Your task to perform on an android device: Open Amazon Image 0: 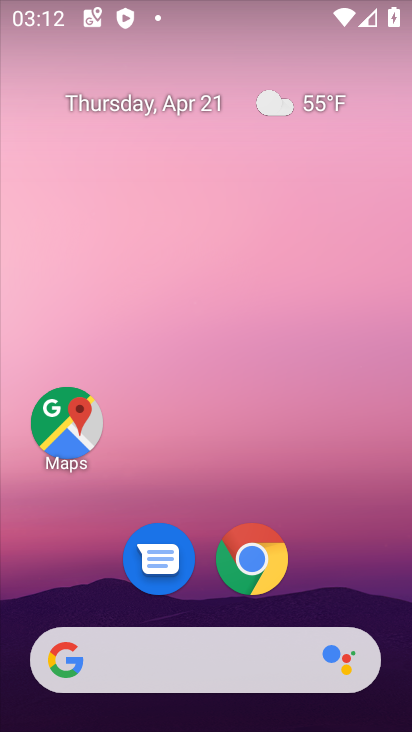
Step 0: click (246, 554)
Your task to perform on an android device: Open Amazon Image 1: 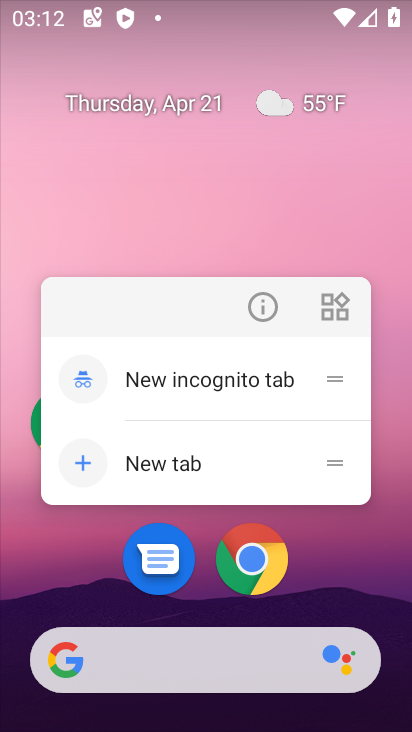
Step 1: click (248, 572)
Your task to perform on an android device: Open Amazon Image 2: 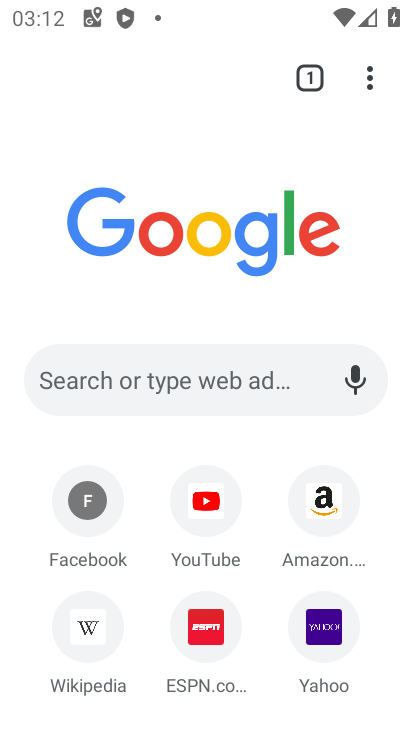
Step 2: click (318, 502)
Your task to perform on an android device: Open Amazon Image 3: 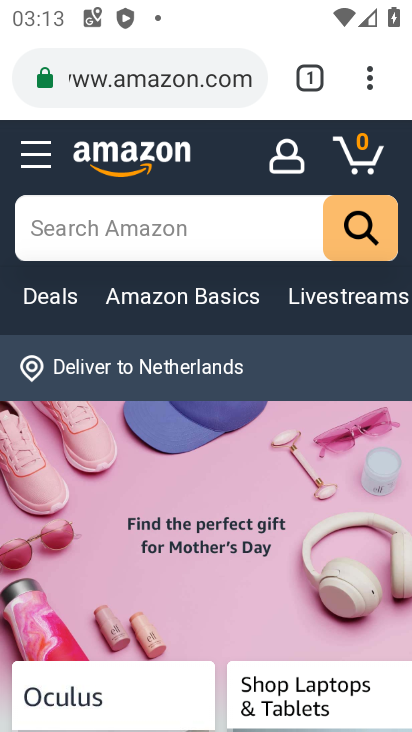
Step 3: task complete